Your task to perform on an android device: Go to display settings Image 0: 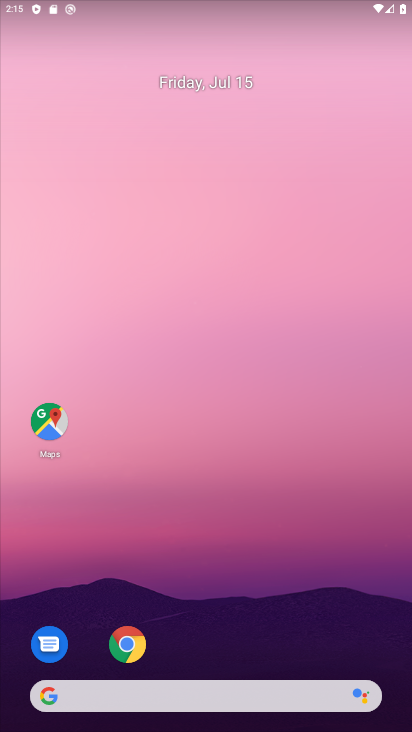
Step 0: drag from (234, 645) to (318, 4)
Your task to perform on an android device: Go to display settings Image 1: 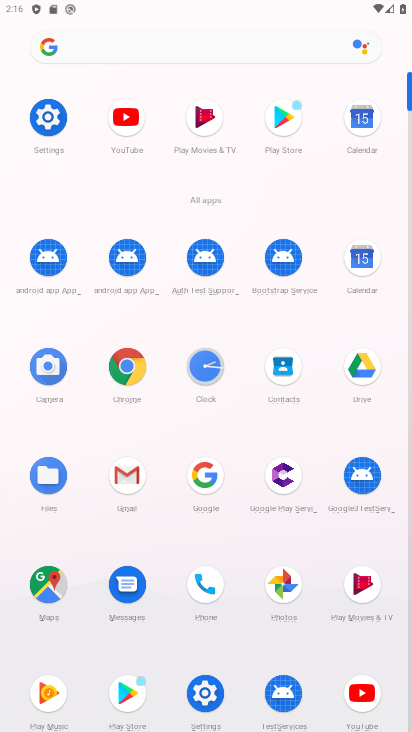
Step 1: click (51, 118)
Your task to perform on an android device: Go to display settings Image 2: 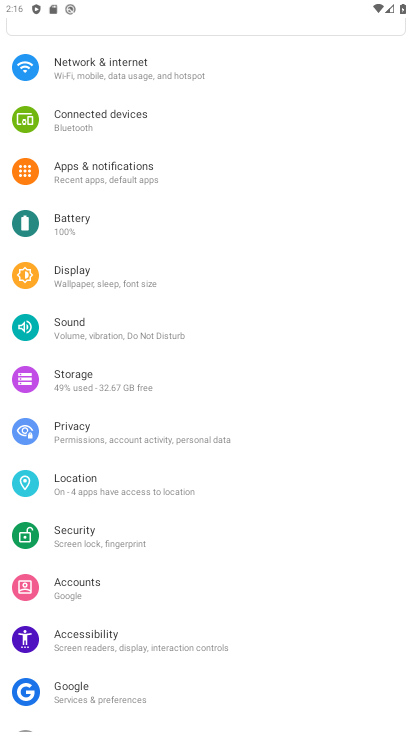
Step 2: click (105, 276)
Your task to perform on an android device: Go to display settings Image 3: 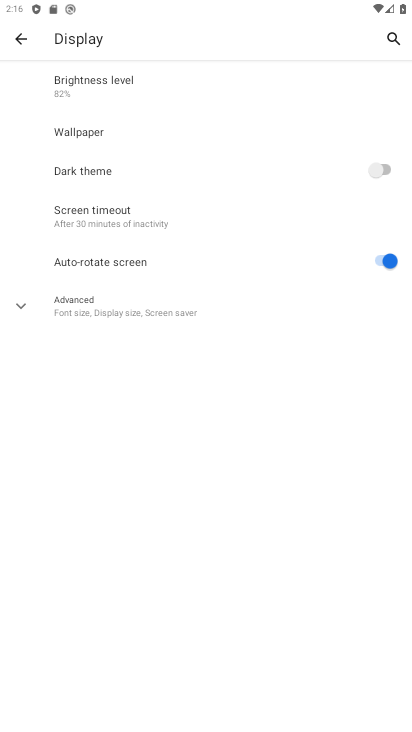
Step 3: task complete